Your task to perform on an android device: When is my next meeting? Image 0: 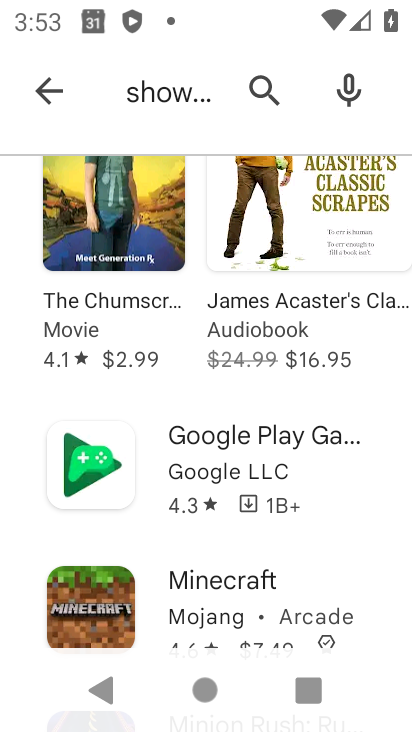
Step 0: press home button
Your task to perform on an android device: When is my next meeting? Image 1: 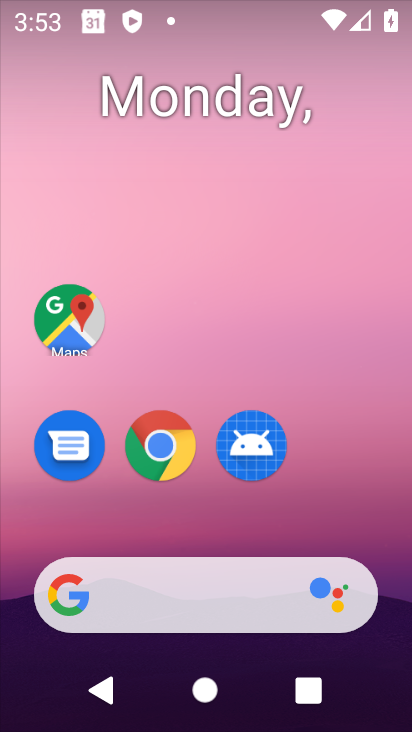
Step 1: drag from (131, 513) to (200, 20)
Your task to perform on an android device: When is my next meeting? Image 2: 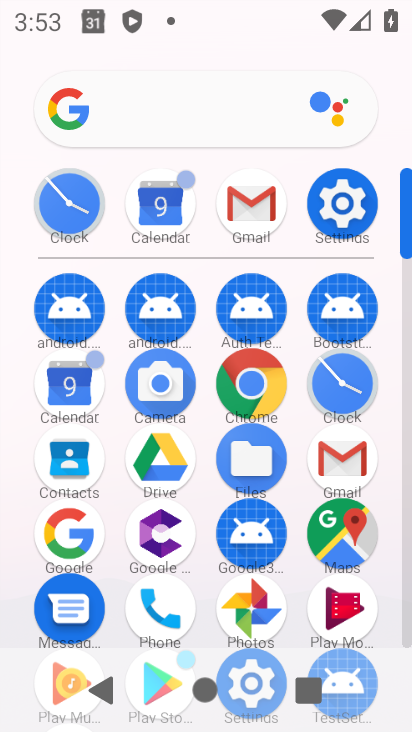
Step 2: click (82, 354)
Your task to perform on an android device: When is my next meeting? Image 3: 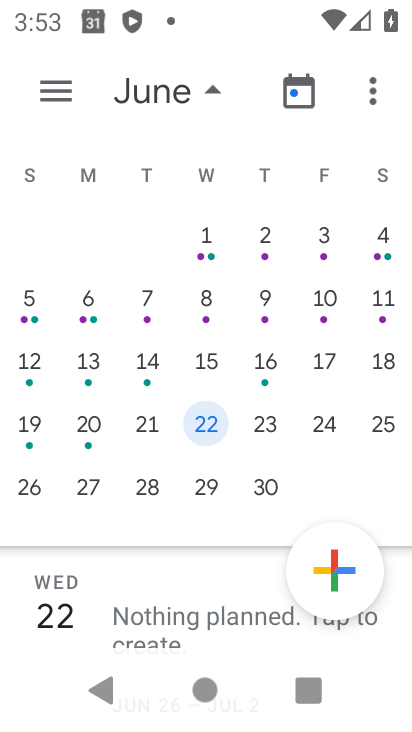
Step 3: drag from (232, 341) to (409, 339)
Your task to perform on an android device: When is my next meeting? Image 4: 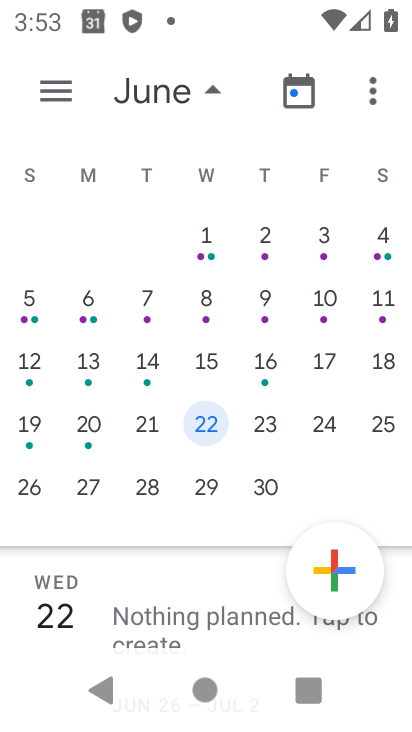
Step 4: drag from (73, 389) to (396, 356)
Your task to perform on an android device: When is my next meeting? Image 5: 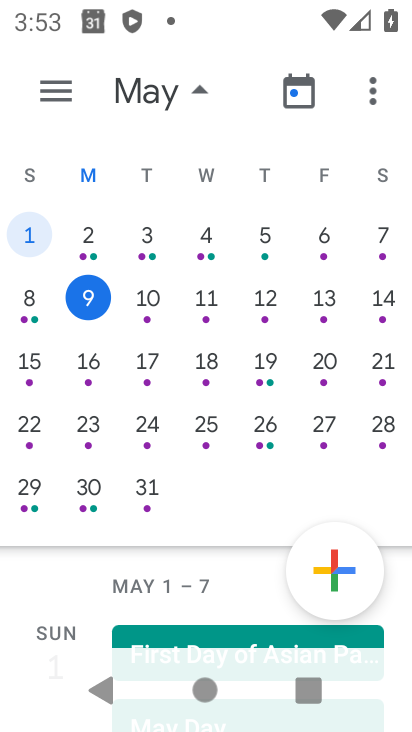
Step 5: click (57, 91)
Your task to perform on an android device: When is my next meeting? Image 6: 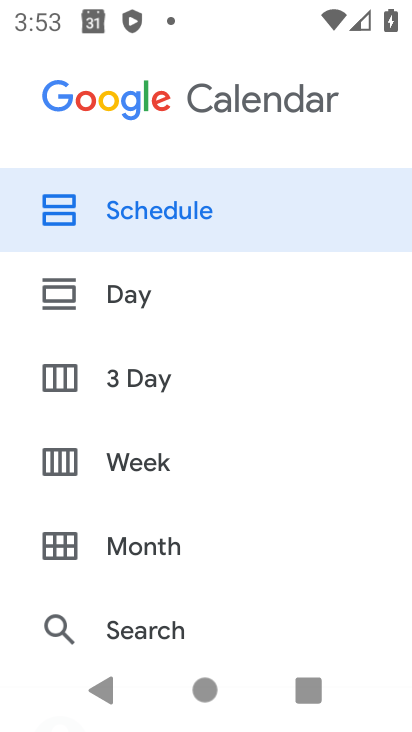
Step 6: click (65, 213)
Your task to perform on an android device: When is my next meeting? Image 7: 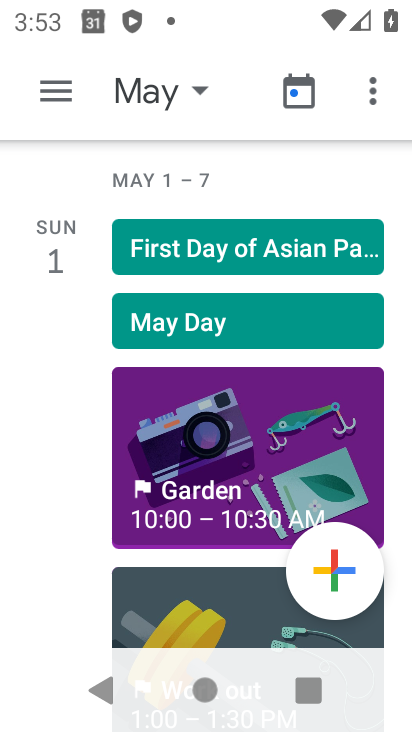
Step 7: task complete